Your task to perform on an android device: Go to display settings Image 0: 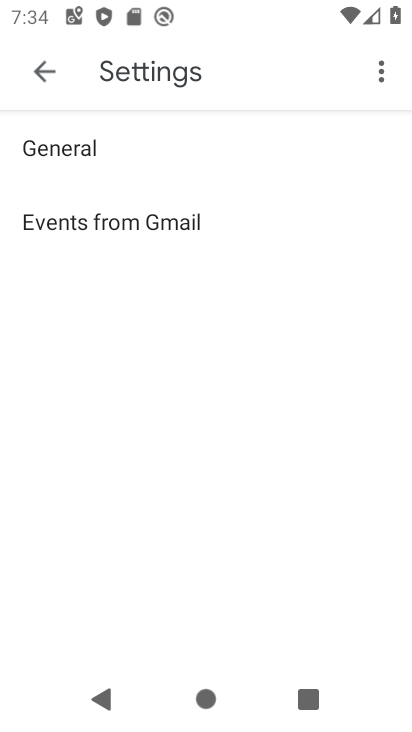
Step 0: press home button
Your task to perform on an android device: Go to display settings Image 1: 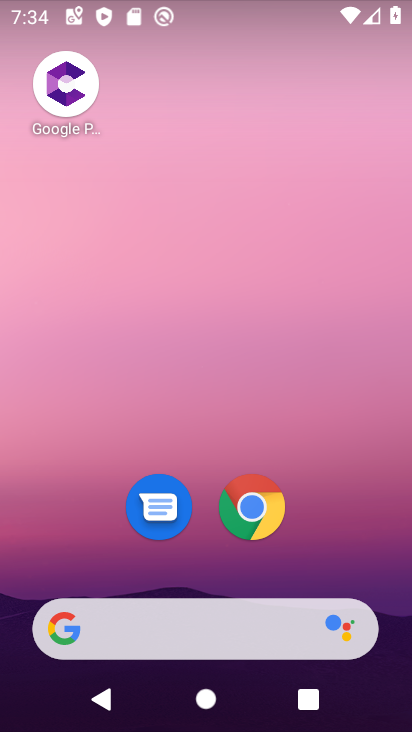
Step 1: drag from (368, 569) to (335, 181)
Your task to perform on an android device: Go to display settings Image 2: 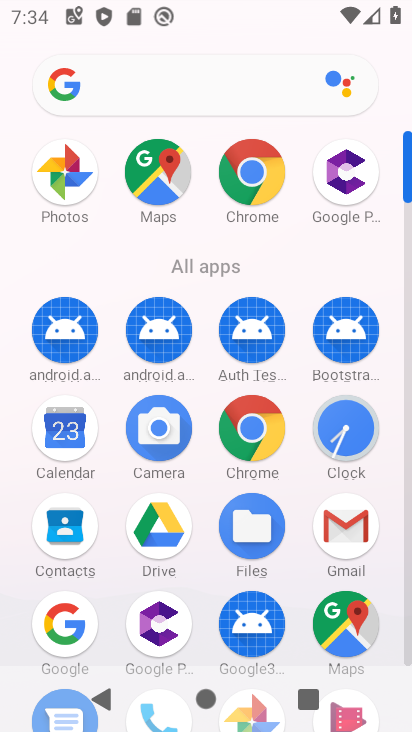
Step 2: drag from (207, 605) to (208, 222)
Your task to perform on an android device: Go to display settings Image 3: 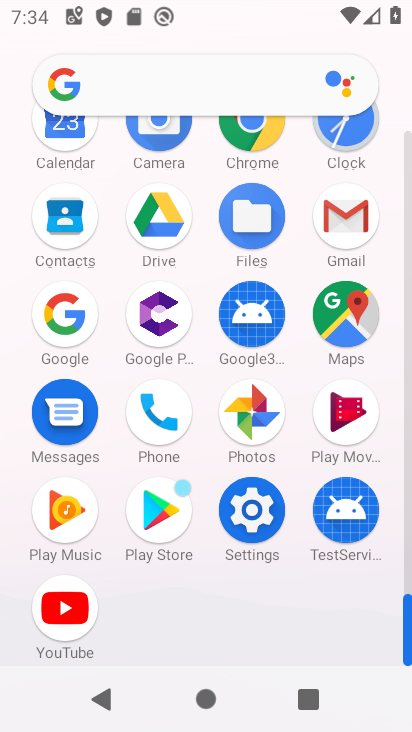
Step 3: click (252, 530)
Your task to perform on an android device: Go to display settings Image 4: 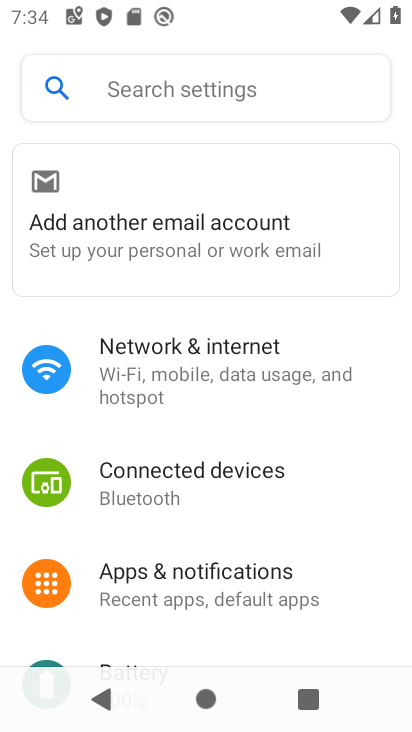
Step 4: drag from (193, 620) to (220, 302)
Your task to perform on an android device: Go to display settings Image 5: 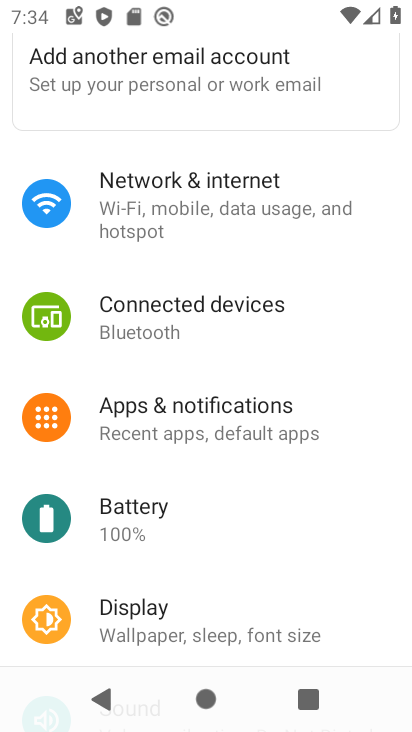
Step 5: drag from (204, 570) to (270, 304)
Your task to perform on an android device: Go to display settings Image 6: 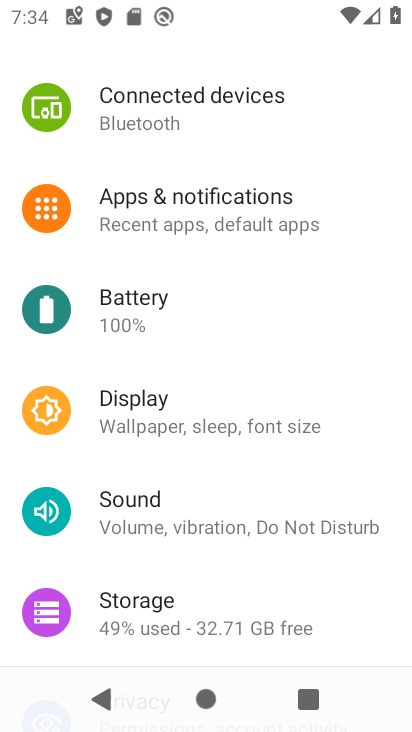
Step 6: click (188, 426)
Your task to perform on an android device: Go to display settings Image 7: 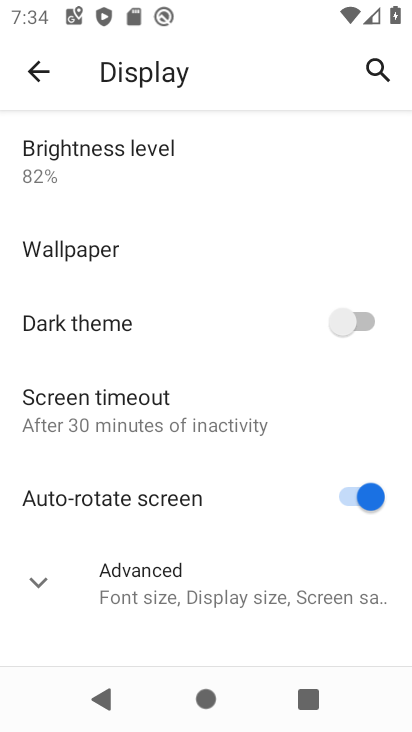
Step 7: task complete